Your task to perform on an android device: turn notification dots off Image 0: 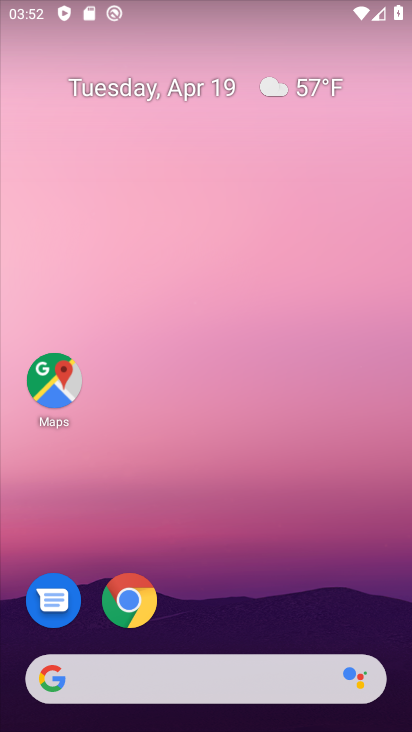
Step 0: drag from (337, 603) to (202, 186)
Your task to perform on an android device: turn notification dots off Image 1: 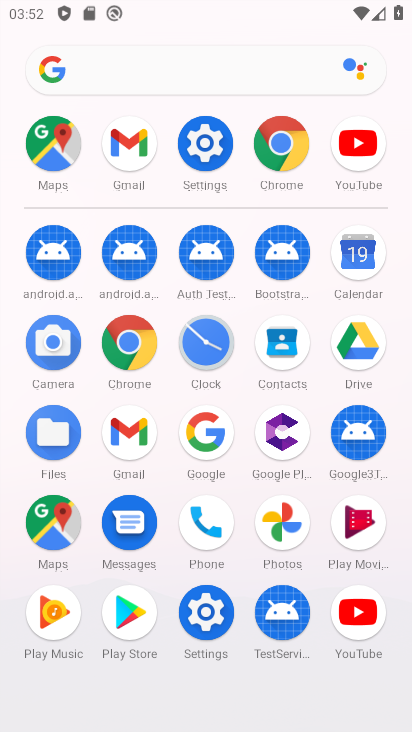
Step 1: click (211, 149)
Your task to perform on an android device: turn notification dots off Image 2: 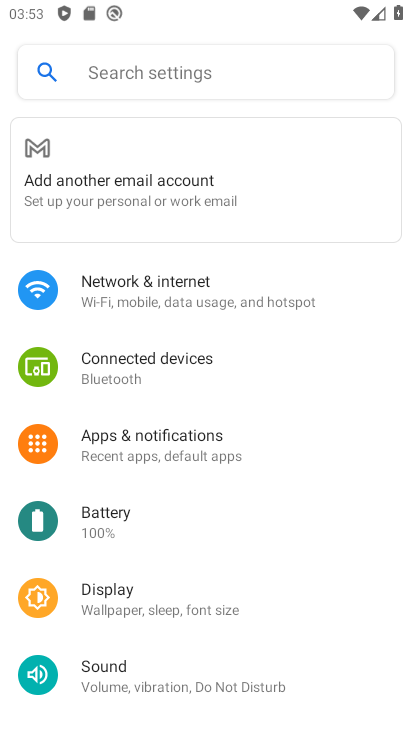
Step 2: click (175, 463)
Your task to perform on an android device: turn notification dots off Image 3: 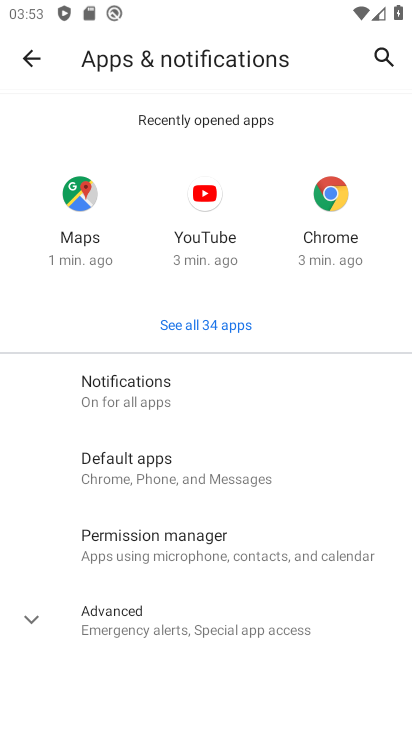
Step 3: click (201, 389)
Your task to perform on an android device: turn notification dots off Image 4: 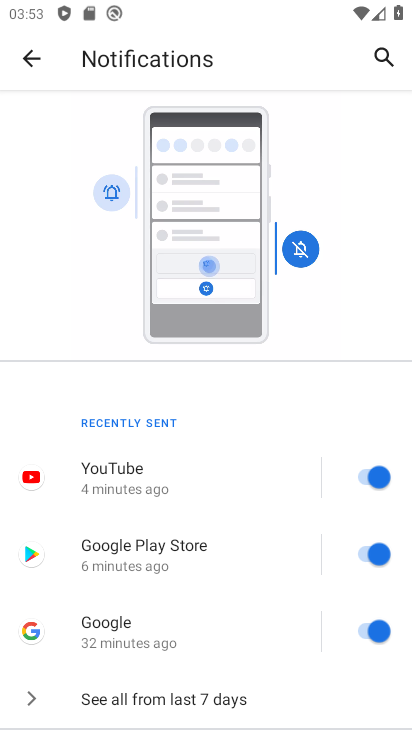
Step 4: drag from (261, 688) to (242, 183)
Your task to perform on an android device: turn notification dots off Image 5: 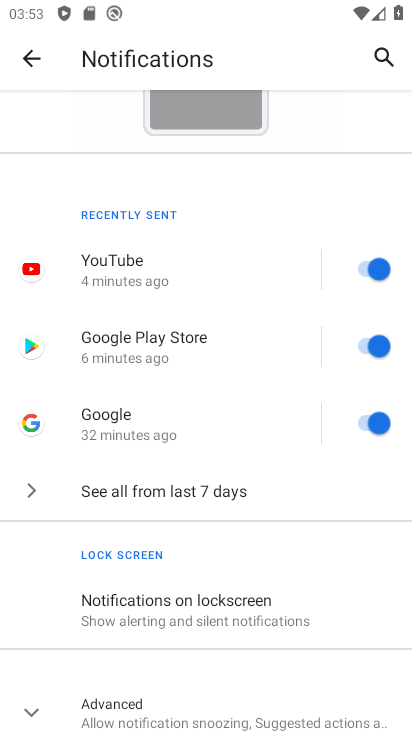
Step 5: drag from (255, 528) to (212, 161)
Your task to perform on an android device: turn notification dots off Image 6: 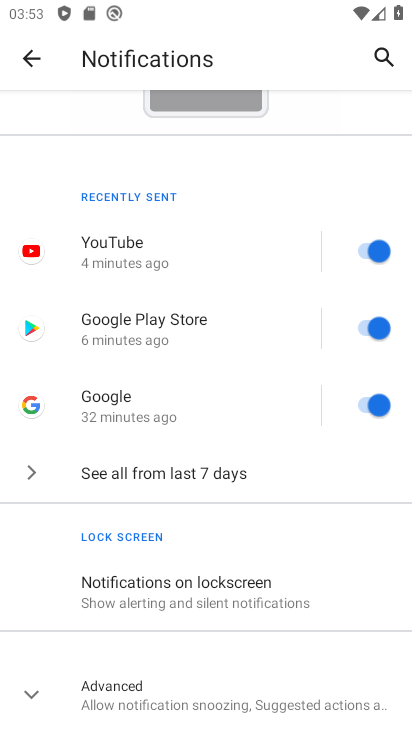
Step 6: click (247, 695)
Your task to perform on an android device: turn notification dots off Image 7: 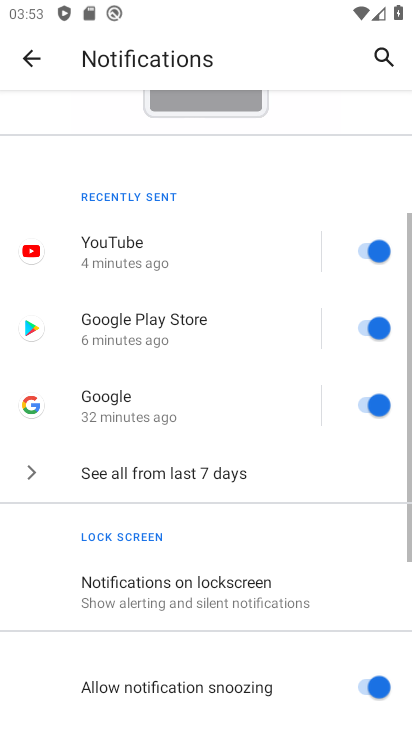
Step 7: task complete